Your task to perform on an android device: toggle notifications settings in the gmail app Image 0: 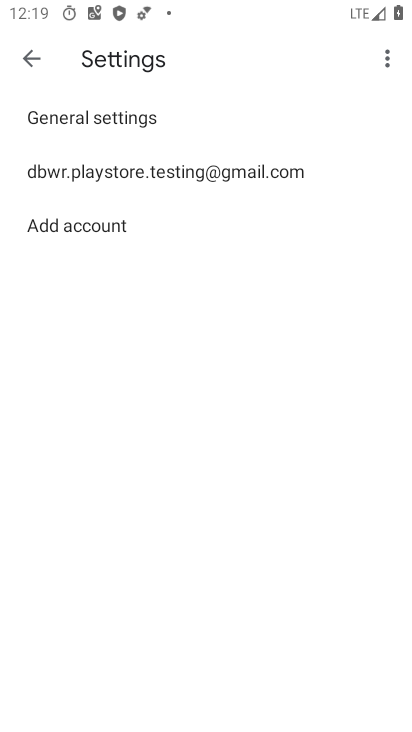
Step 0: press home button
Your task to perform on an android device: toggle notifications settings in the gmail app Image 1: 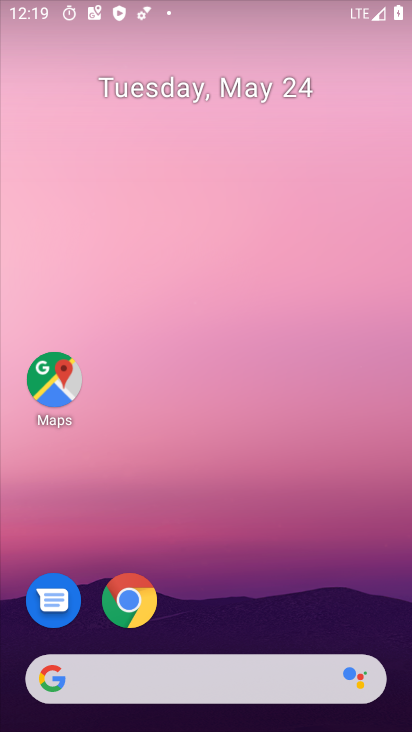
Step 1: drag from (272, 553) to (285, 131)
Your task to perform on an android device: toggle notifications settings in the gmail app Image 2: 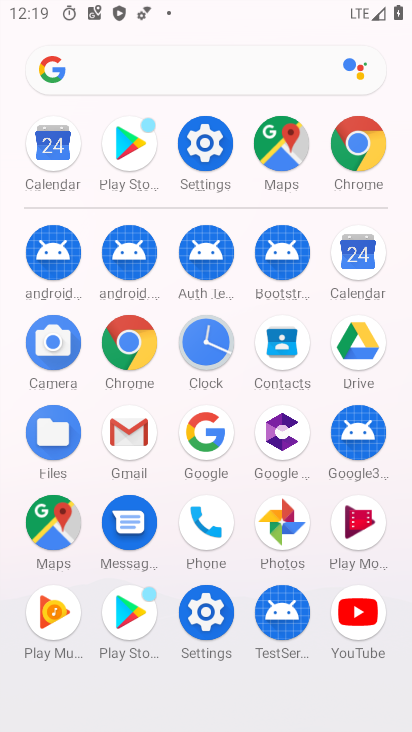
Step 2: click (142, 429)
Your task to perform on an android device: toggle notifications settings in the gmail app Image 3: 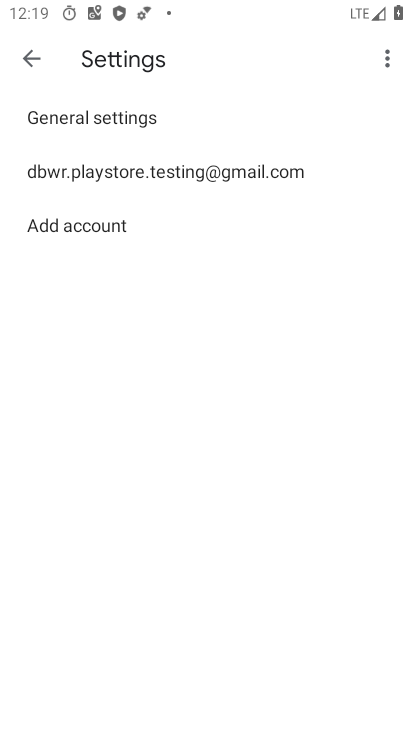
Step 3: click (106, 173)
Your task to perform on an android device: toggle notifications settings in the gmail app Image 4: 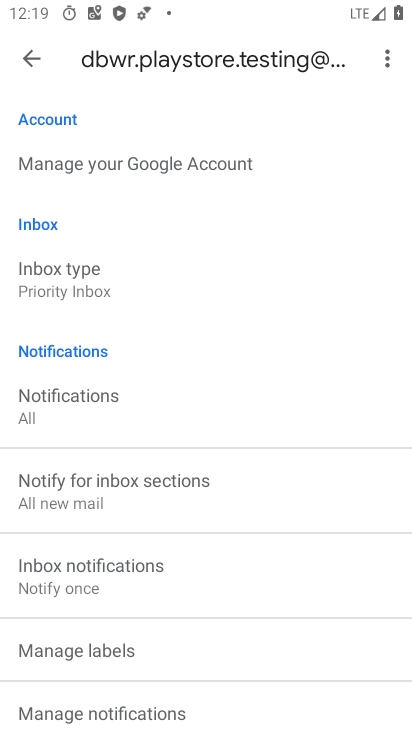
Step 4: click (136, 698)
Your task to perform on an android device: toggle notifications settings in the gmail app Image 5: 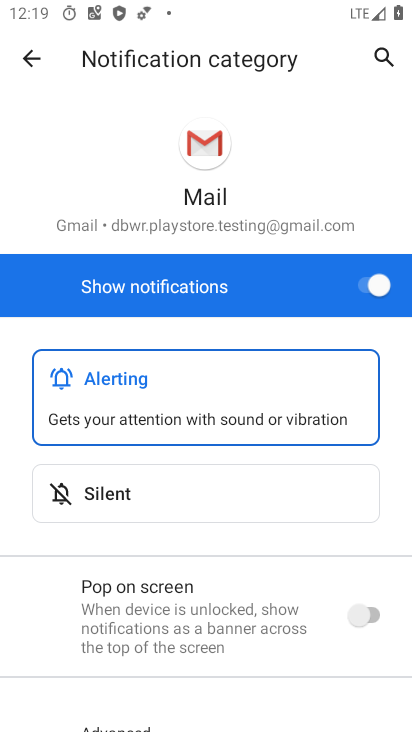
Step 5: click (367, 276)
Your task to perform on an android device: toggle notifications settings in the gmail app Image 6: 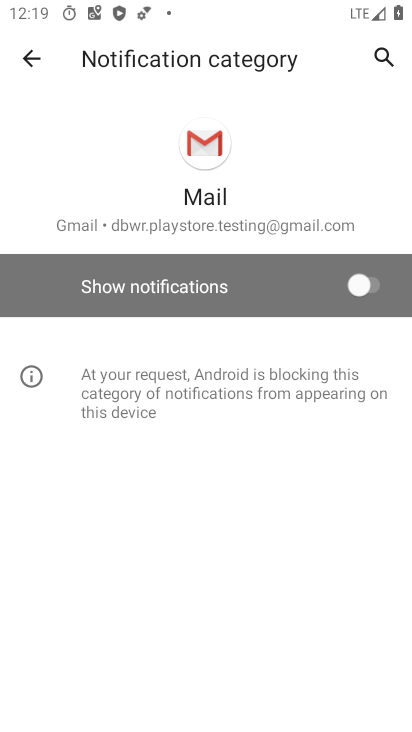
Step 6: task complete